Your task to perform on an android device: Go to settings Image 0: 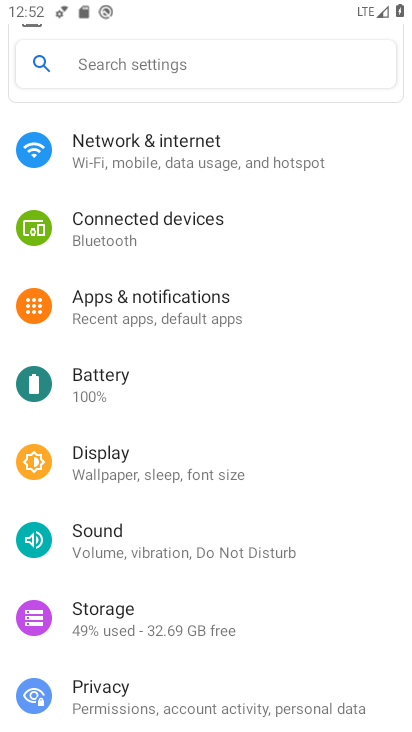
Step 0: drag from (225, 432) to (249, 216)
Your task to perform on an android device: Go to settings Image 1: 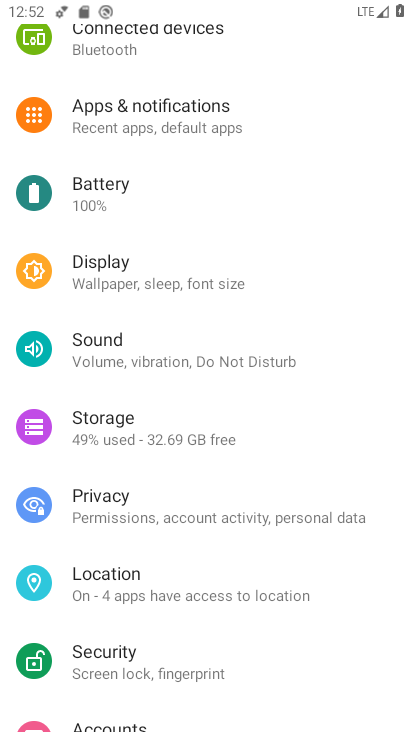
Step 1: task complete